Your task to perform on an android device: Open display settings Image 0: 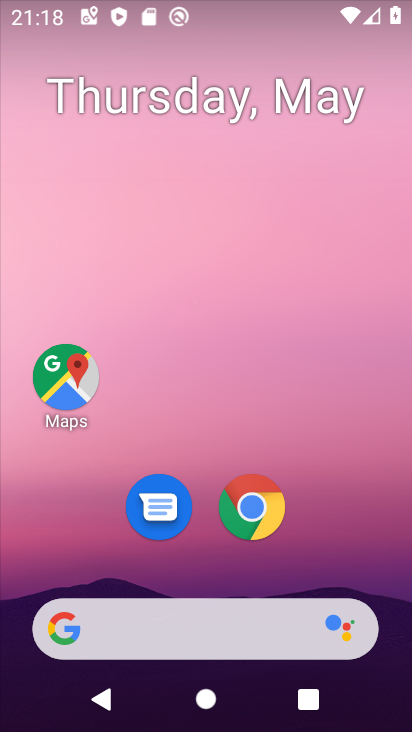
Step 0: drag from (231, 648) to (188, 260)
Your task to perform on an android device: Open display settings Image 1: 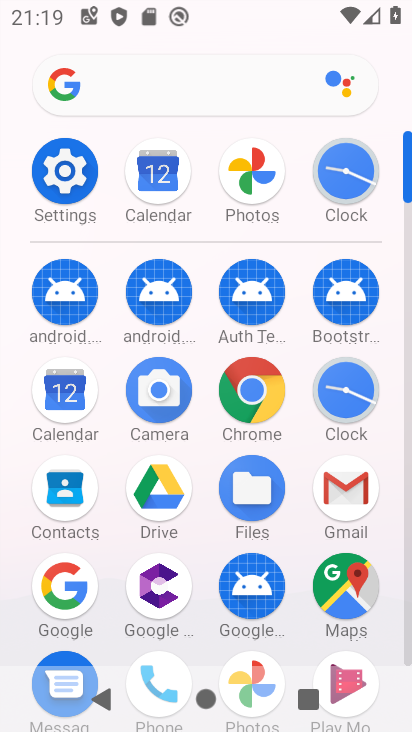
Step 1: click (62, 190)
Your task to perform on an android device: Open display settings Image 2: 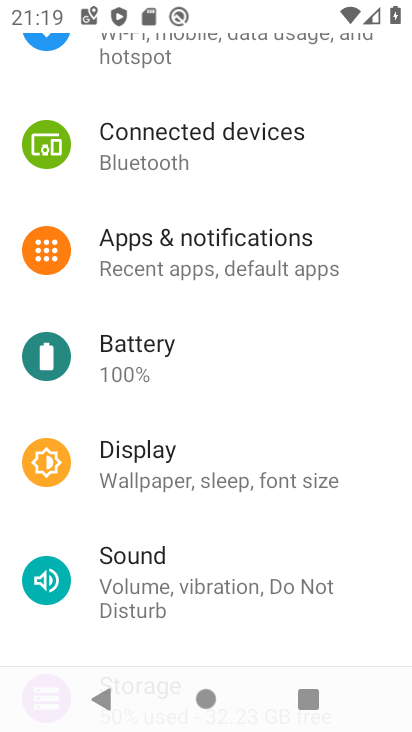
Step 2: click (184, 439)
Your task to perform on an android device: Open display settings Image 3: 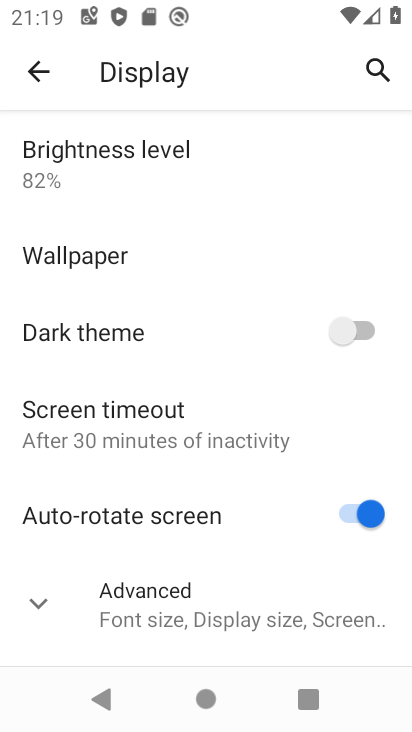
Step 3: task complete